Your task to perform on an android device: Open Google Image 0: 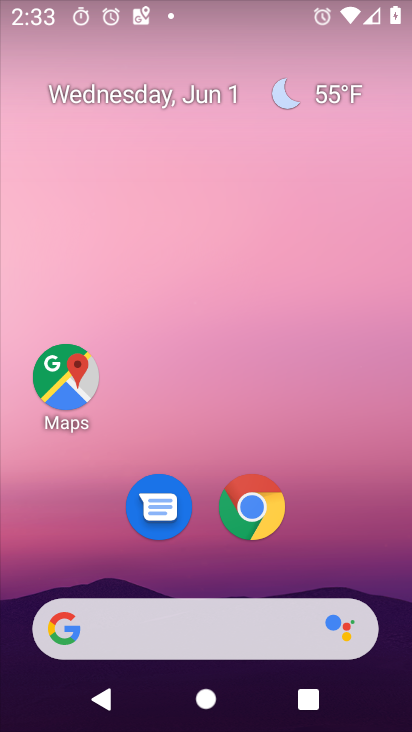
Step 0: drag from (360, 568) to (351, 44)
Your task to perform on an android device: Open Google Image 1: 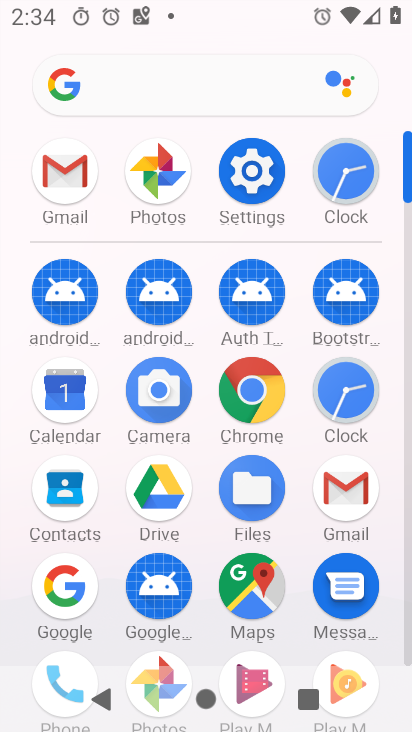
Step 1: click (54, 584)
Your task to perform on an android device: Open Google Image 2: 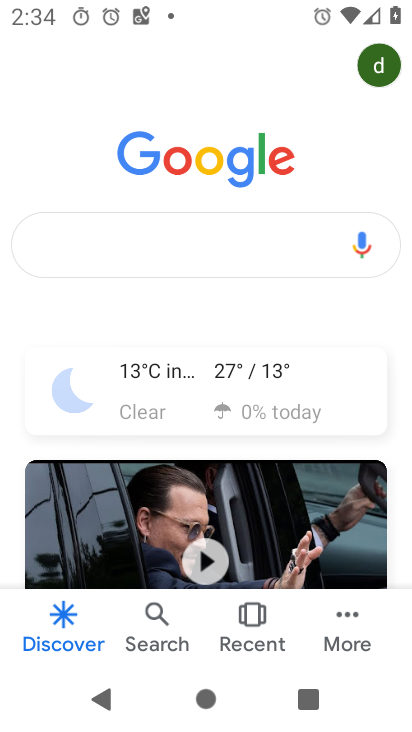
Step 2: task complete